Your task to perform on an android device: empty trash in google photos Image 0: 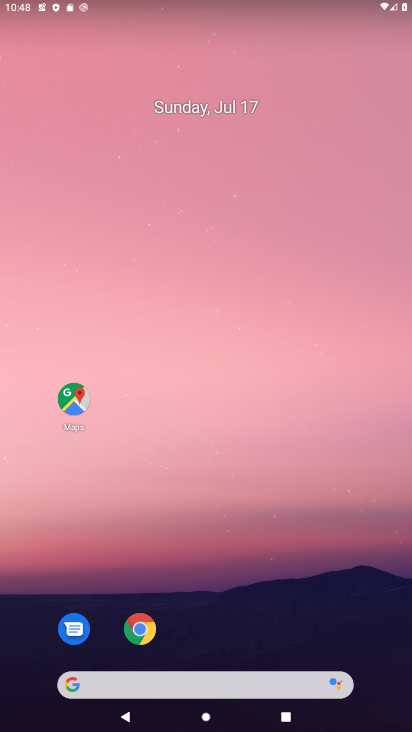
Step 0: drag from (304, 591) to (262, 2)
Your task to perform on an android device: empty trash in google photos Image 1: 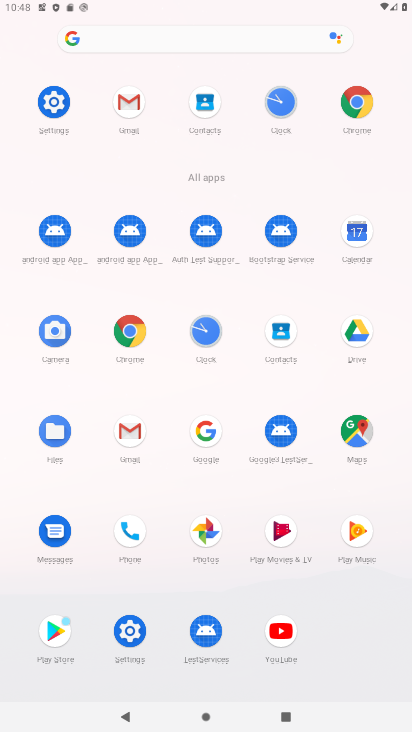
Step 1: click (209, 519)
Your task to perform on an android device: empty trash in google photos Image 2: 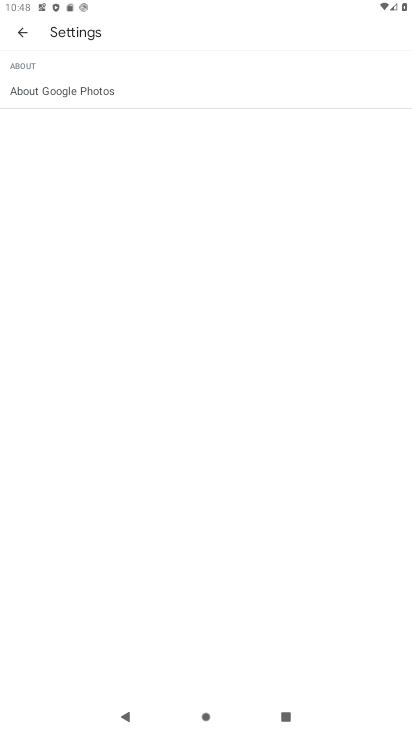
Step 2: click (19, 33)
Your task to perform on an android device: empty trash in google photos Image 3: 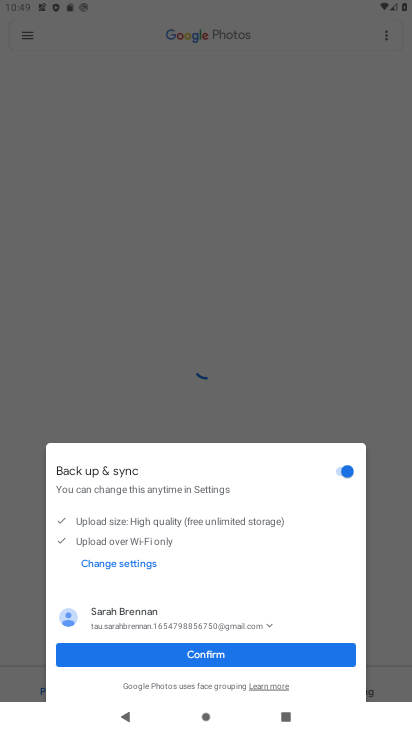
Step 3: click (115, 649)
Your task to perform on an android device: empty trash in google photos Image 4: 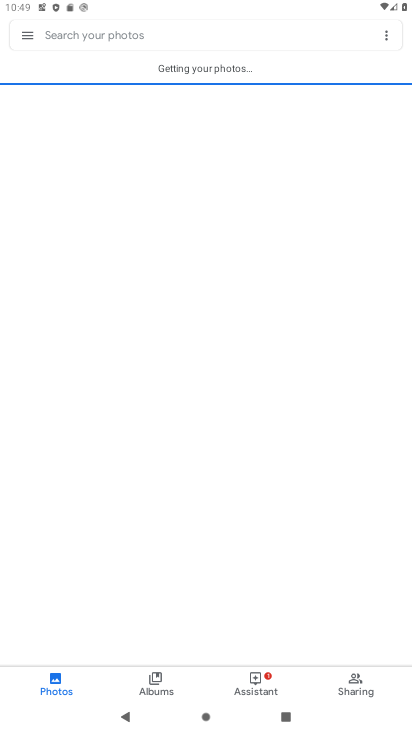
Step 4: click (34, 34)
Your task to perform on an android device: empty trash in google photos Image 5: 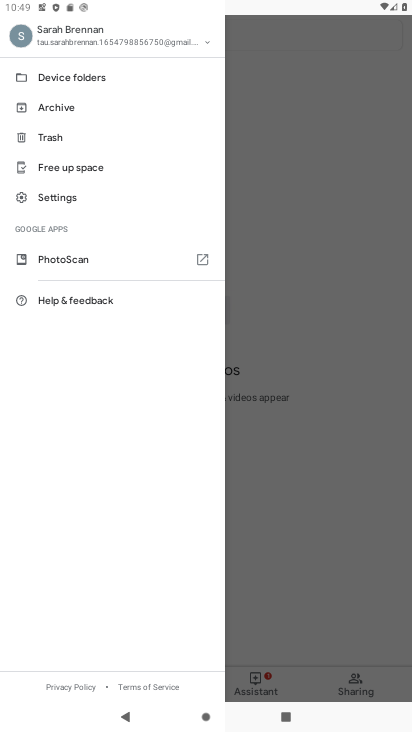
Step 5: click (56, 141)
Your task to perform on an android device: empty trash in google photos Image 6: 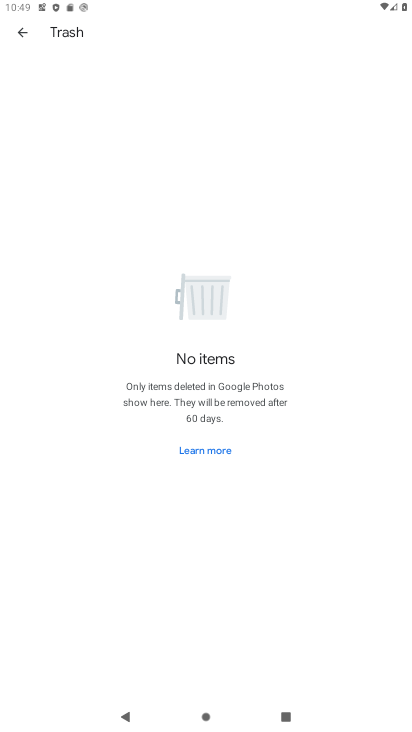
Step 6: task complete